Your task to perform on an android device: What's the weather going to be this weekend? Image 0: 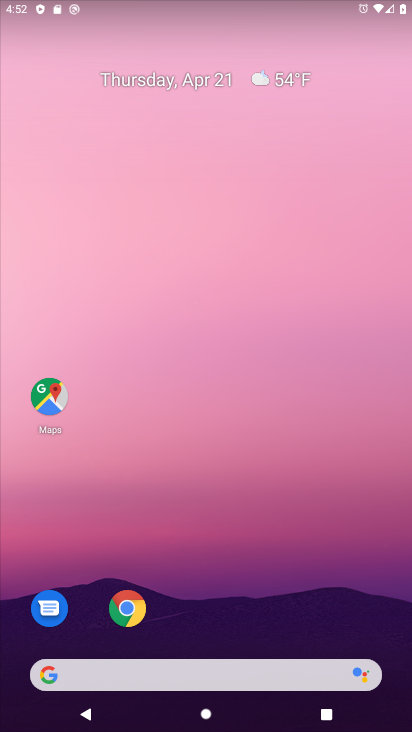
Step 0: click (135, 681)
Your task to perform on an android device: What's the weather going to be this weekend? Image 1: 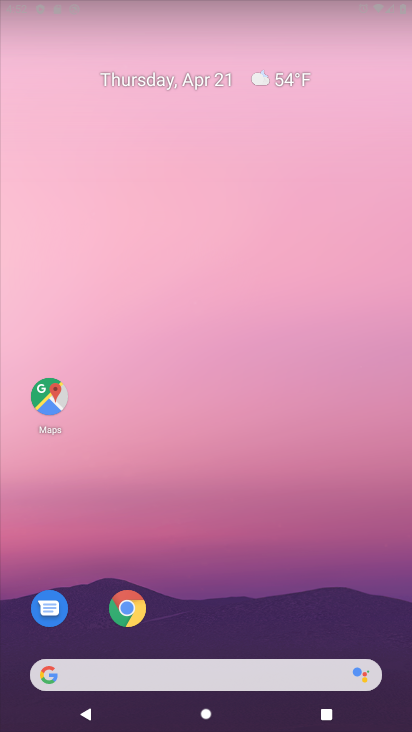
Step 1: click (135, 681)
Your task to perform on an android device: What's the weather going to be this weekend? Image 2: 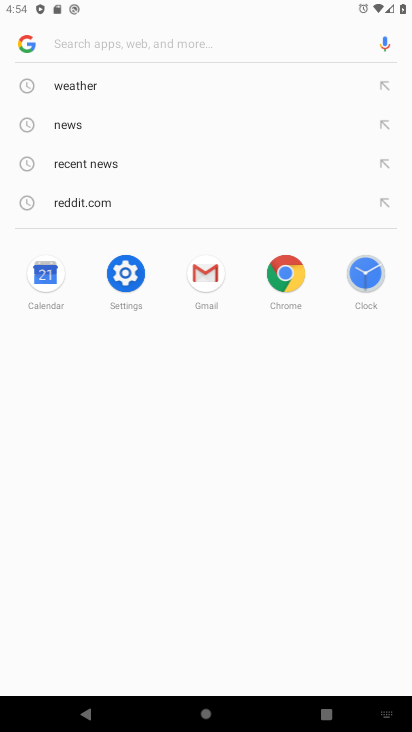
Step 2: type "what is tha wethrer going to be this weekned "
Your task to perform on an android device: What's the weather going to be this weekend? Image 3: 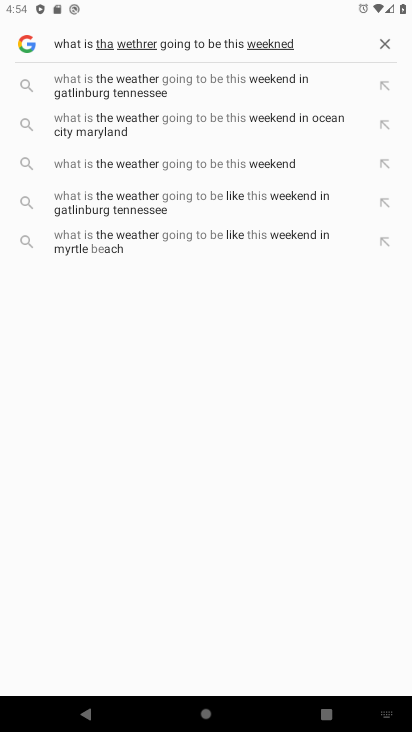
Step 3: click (211, 166)
Your task to perform on an android device: What's the weather going to be this weekend? Image 4: 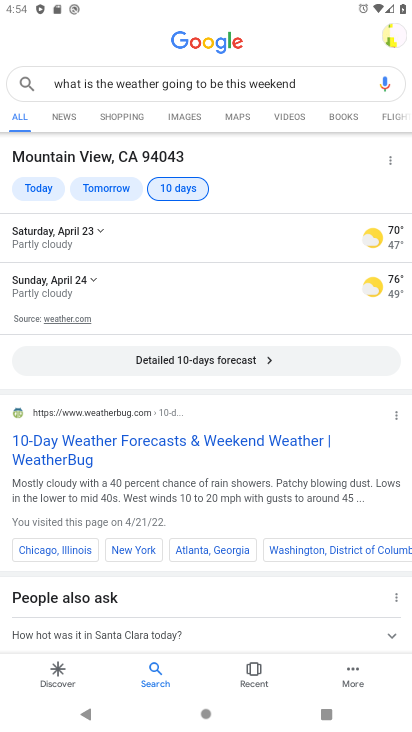
Step 4: task complete